Your task to perform on an android device: Show me recent news Image 0: 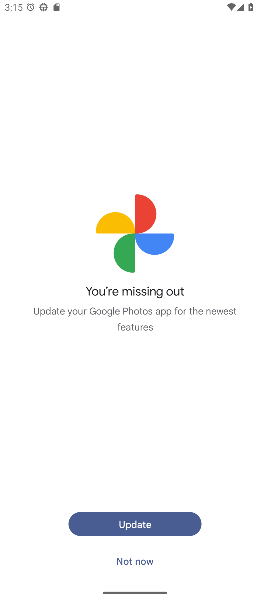
Step 0: press back button
Your task to perform on an android device: Show me recent news Image 1: 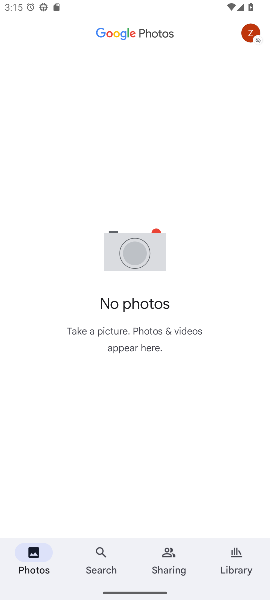
Step 1: press back button
Your task to perform on an android device: Show me recent news Image 2: 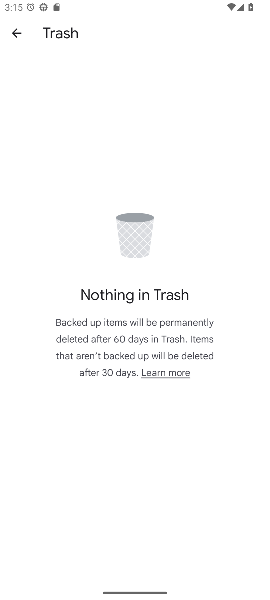
Step 2: press home button
Your task to perform on an android device: Show me recent news Image 3: 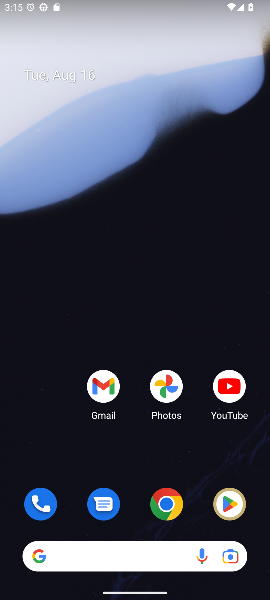
Step 3: drag from (130, 497) to (115, 143)
Your task to perform on an android device: Show me recent news Image 4: 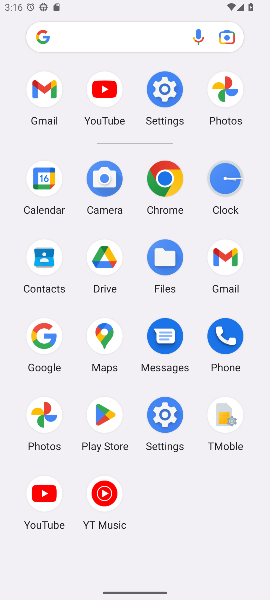
Step 4: click (43, 339)
Your task to perform on an android device: Show me recent news Image 5: 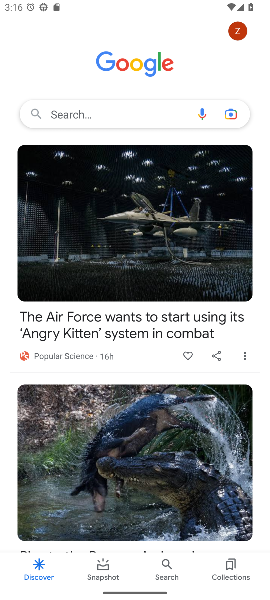
Step 5: task complete